Your task to perform on an android device: Open the map Image 0: 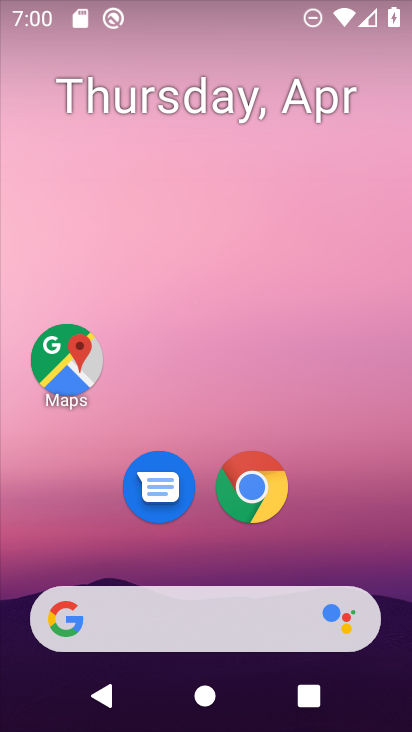
Step 0: click (408, 501)
Your task to perform on an android device: Open the map Image 1: 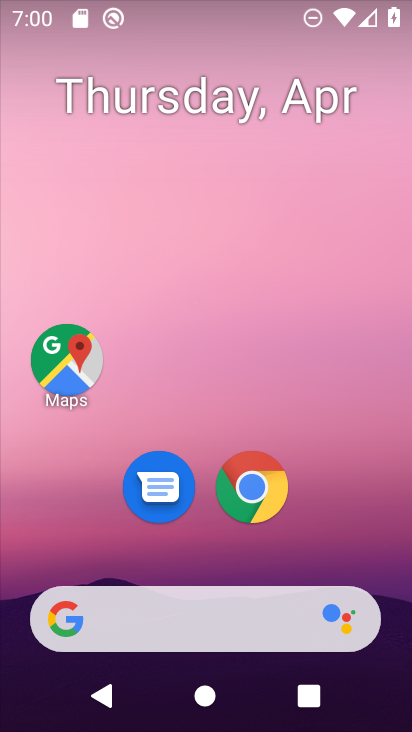
Step 1: drag from (329, 535) to (378, 99)
Your task to perform on an android device: Open the map Image 2: 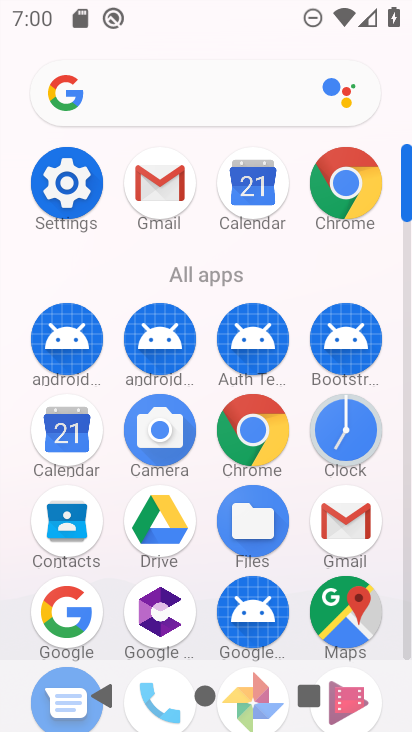
Step 2: drag from (297, 287) to (329, 97)
Your task to perform on an android device: Open the map Image 3: 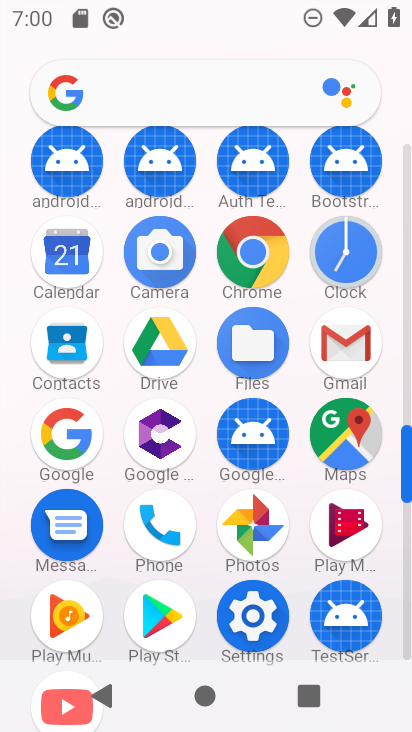
Step 3: click (349, 433)
Your task to perform on an android device: Open the map Image 4: 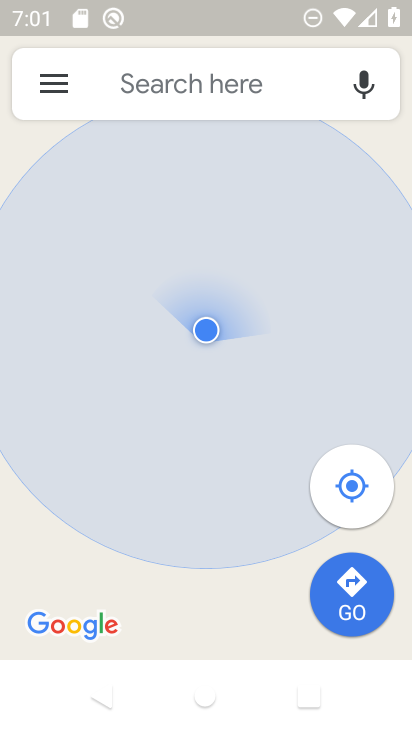
Step 4: task complete